Your task to perform on an android device: Go to network settings Image 0: 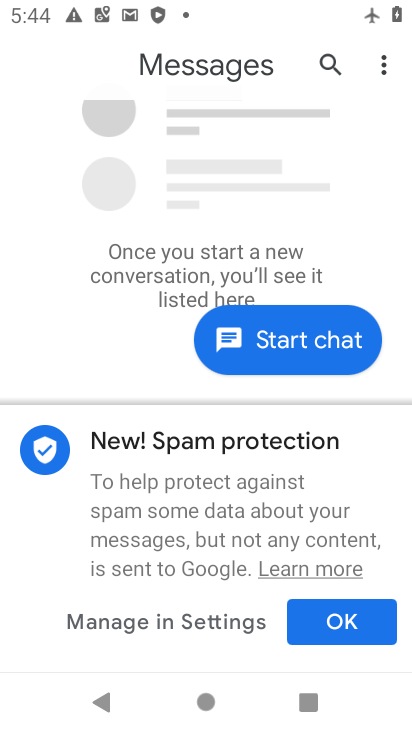
Step 0: press home button
Your task to perform on an android device: Go to network settings Image 1: 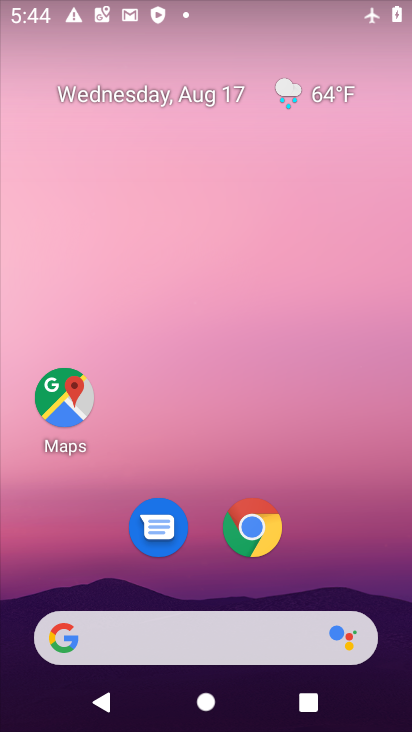
Step 1: drag from (174, 599) to (160, 166)
Your task to perform on an android device: Go to network settings Image 2: 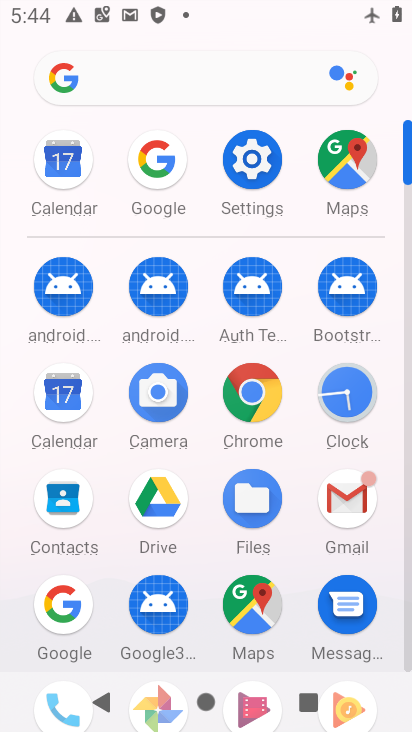
Step 2: click (258, 162)
Your task to perform on an android device: Go to network settings Image 3: 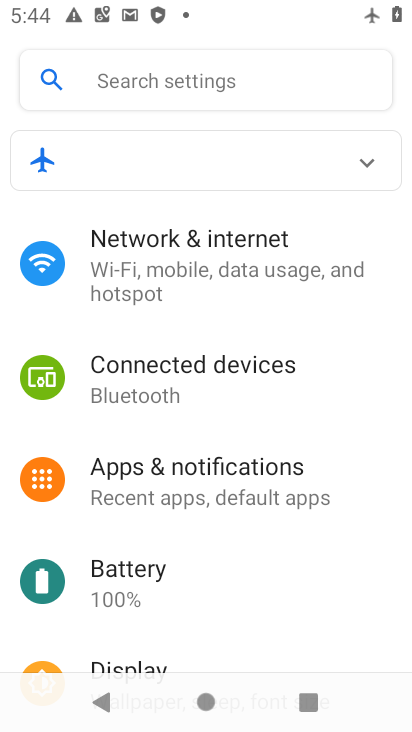
Step 3: click (151, 249)
Your task to perform on an android device: Go to network settings Image 4: 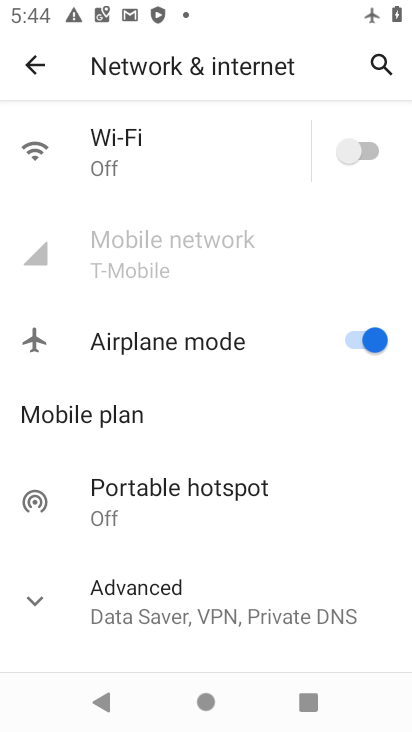
Step 4: click (344, 332)
Your task to perform on an android device: Go to network settings Image 5: 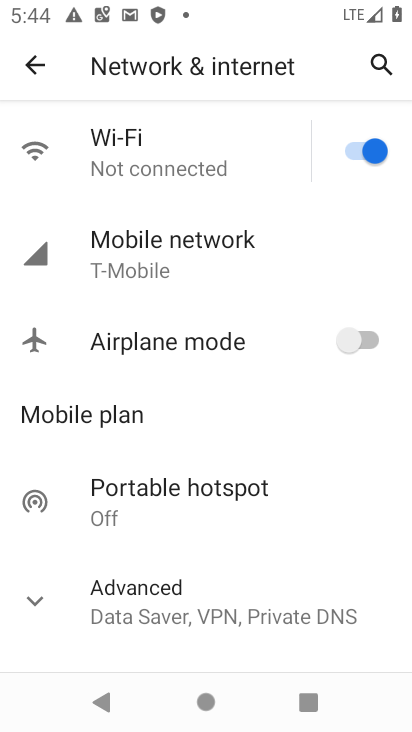
Step 5: click (165, 613)
Your task to perform on an android device: Go to network settings Image 6: 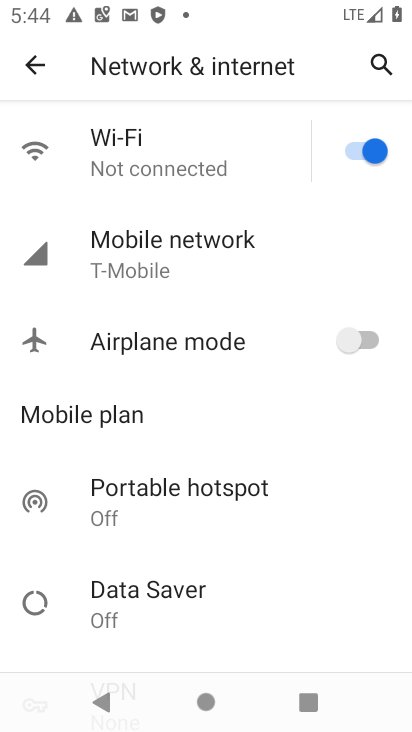
Step 6: drag from (195, 614) to (164, 230)
Your task to perform on an android device: Go to network settings Image 7: 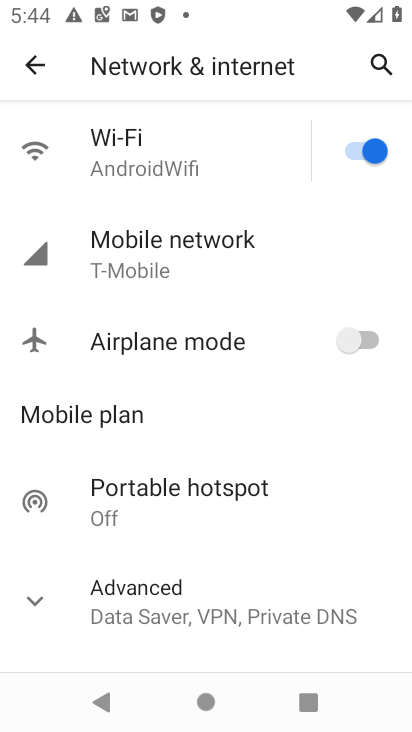
Step 7: click (28, 609)
Your task to perform on an android device: Go to network settings Image 8: 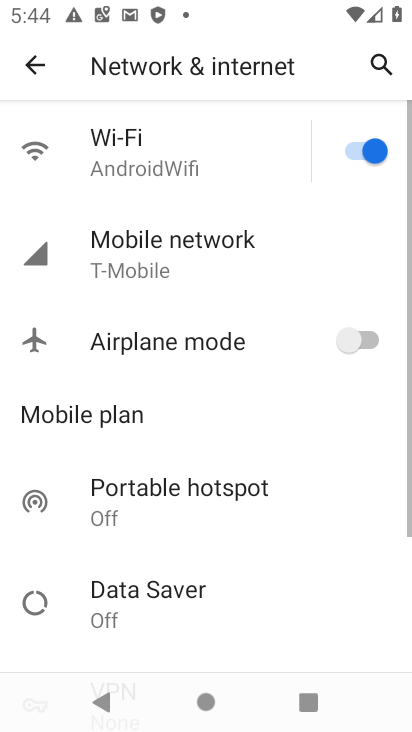
Step 8: task complete